Your task to perform on an android device: Go to Amazon Image 0: 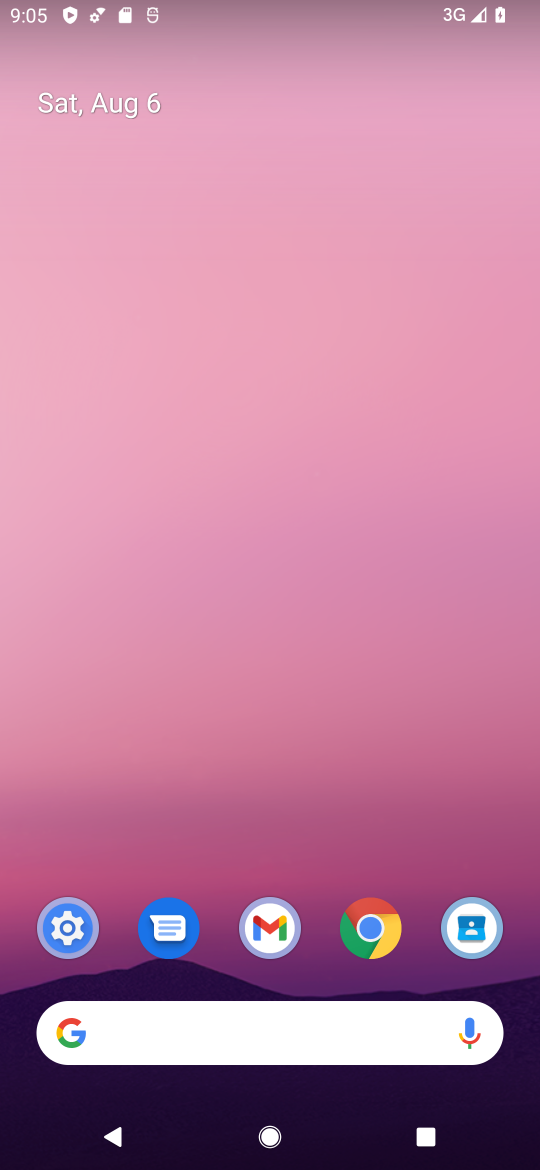
Step 0: click (324, 716)
Your task to perform on an android device: Go to Amazon Image 1: 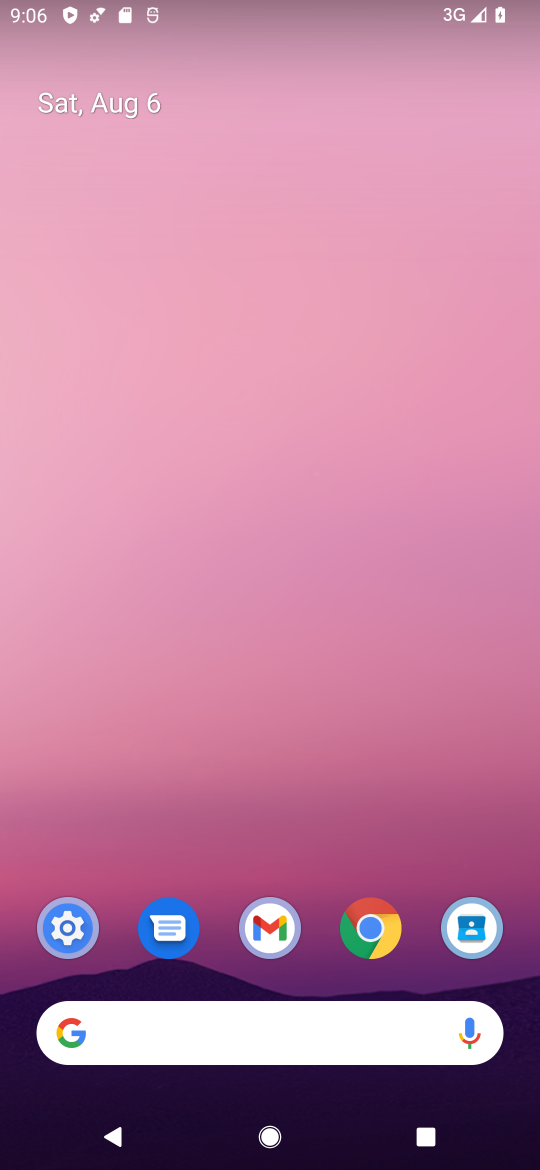
Step 1: click (377, 930)
Your task to perform on an android device: Go to Amazon Image 2: 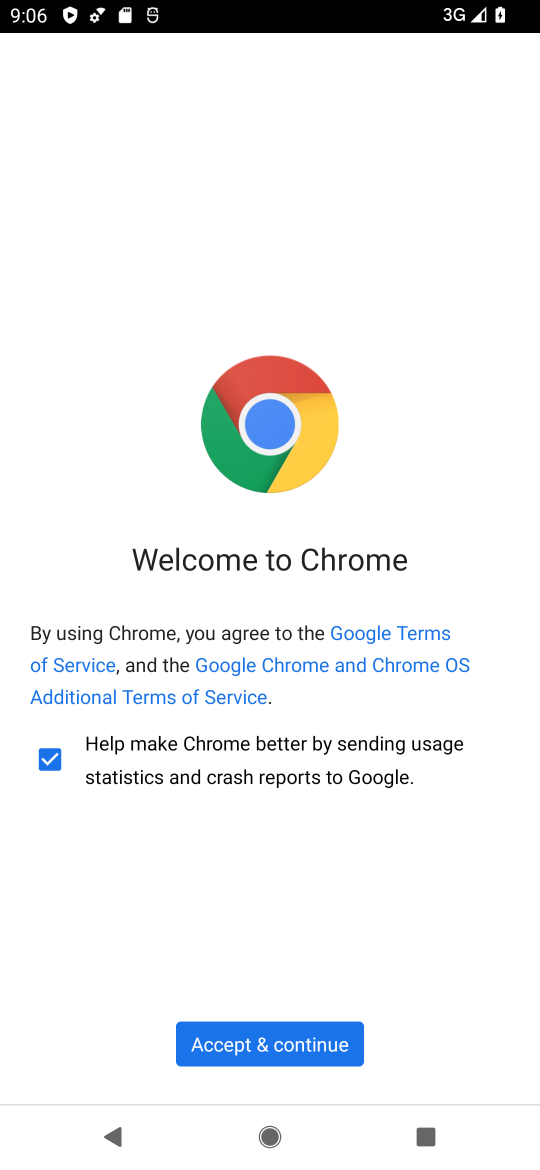
Step 2: click (256, 1041)
Your task to perform on an android device: Go to Amazon Image 3: 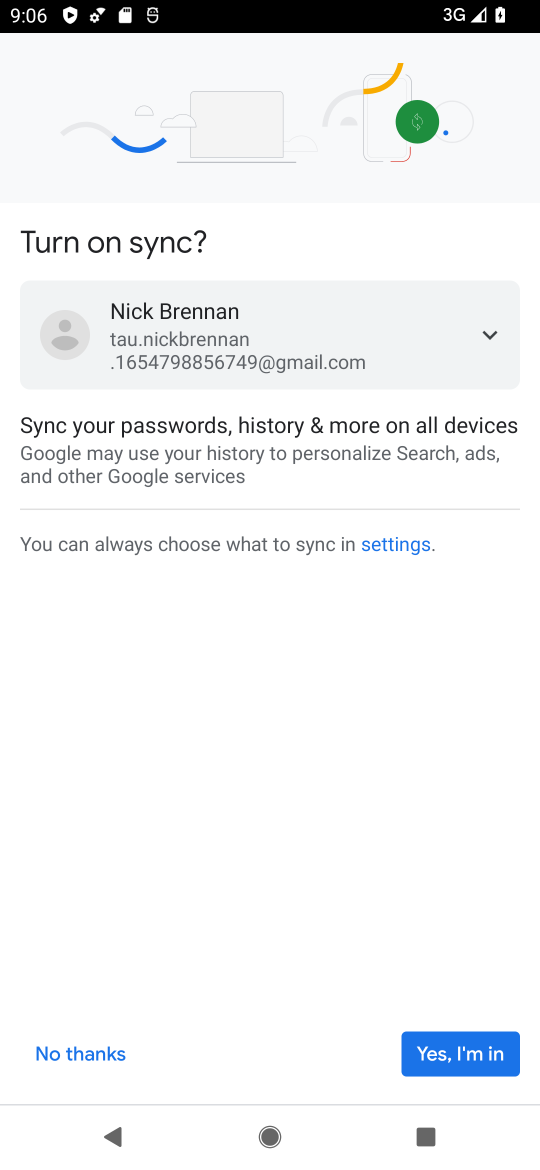
Step 3: click (430, 1039)
Your task to perform on an android device: Go to Amazon Image 4: 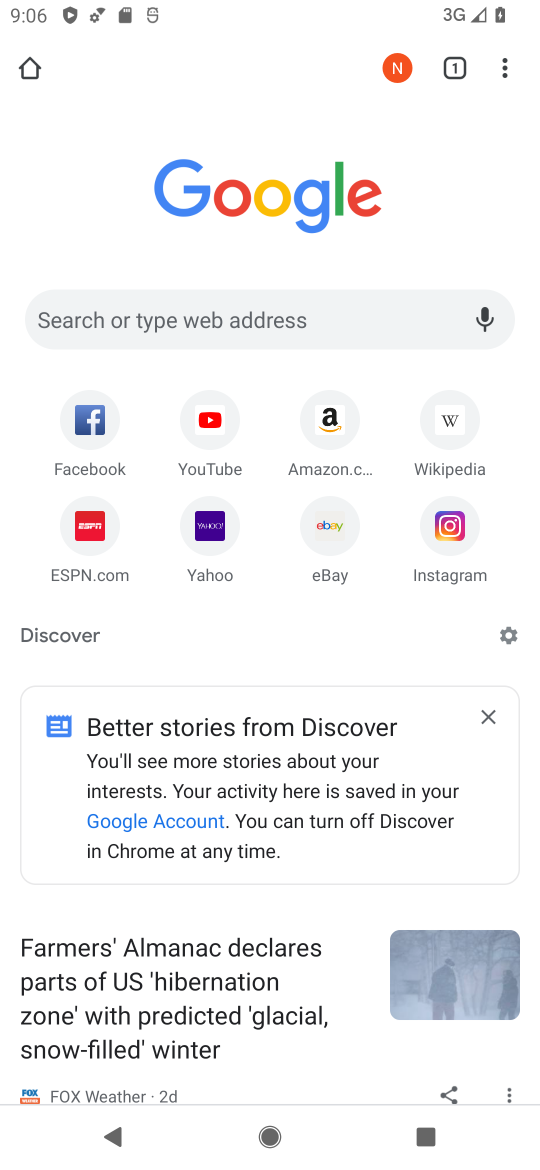
Step 4: click (323, 422)
Your task to perform on an android device: Go to Amazon Image 5: 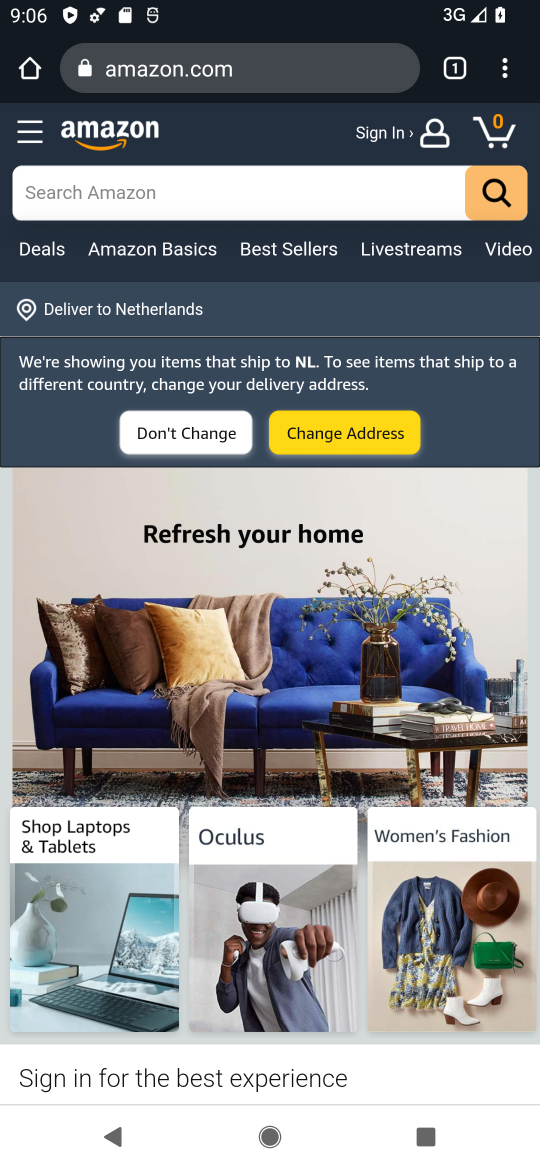
Step 5: task complete